Your task to perform on an android device: open wifi settings Image 0: 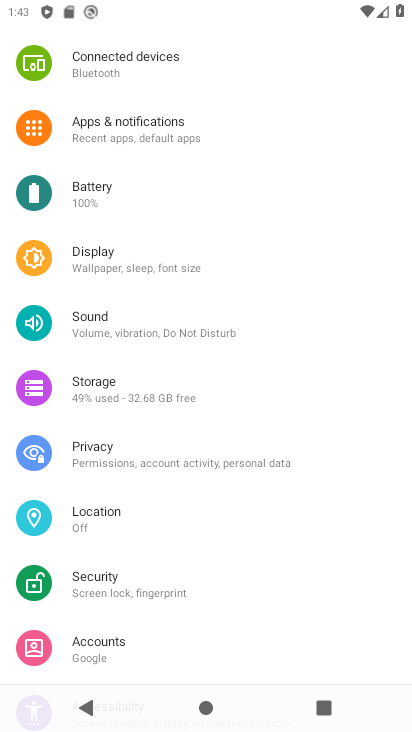
Step 0: drag from (160, 159) to (166, 632)
Your task to perform on an android device: open wifi settings Image 1: 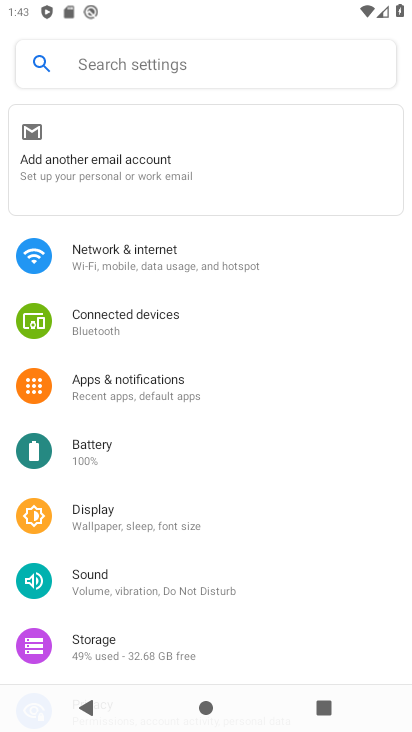
Step 1: click (162, 256)
Your task to perform on an android device: open wifi settings Image 2: 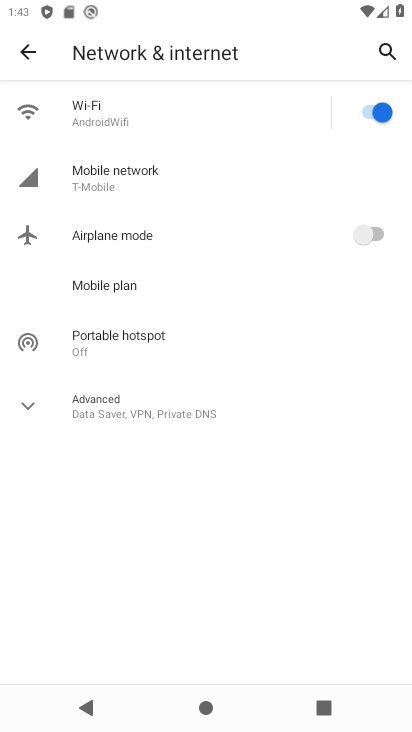
Step 2: click (101, 117)
Your task to perform on an android device: open wifi settings Image 3: 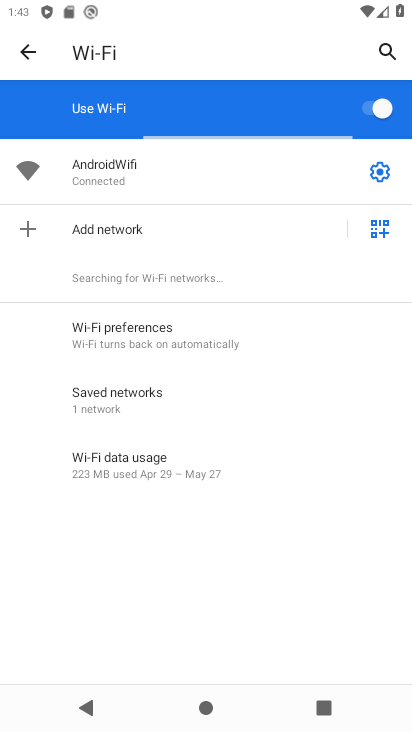
Step 3: task complete